Your task to perform on an android device: remove spam from my inbox in the gmail app Image 0: 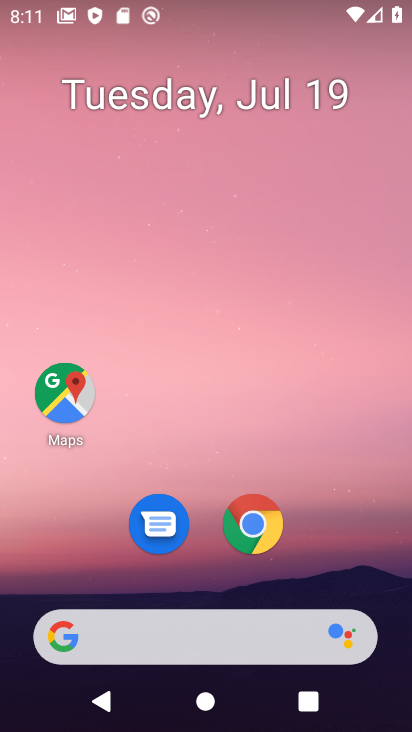
Step 0: drag from (230, 370) to (311, 87)
Your task to perform on an android device: remove spam from my inbox in the gmail app Image 1: 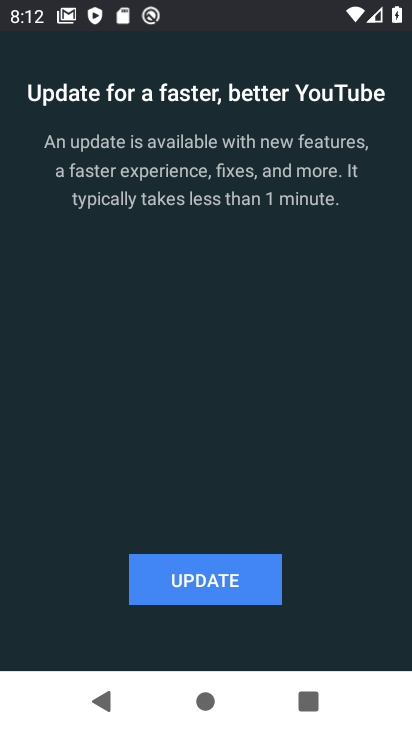
Step 1: press home button
Your task to perform on an android device: remove spam from my inbox in the gmail app Image 2: 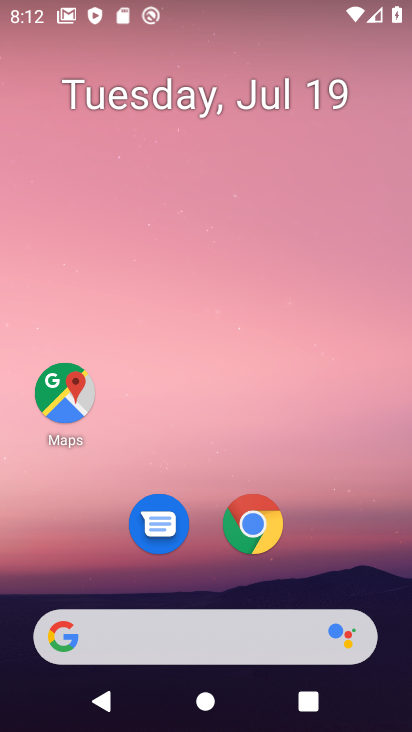
Step 2: drag from (229, 500) to (311, 2)
Your task to perform on an android device: remove spam from my inbox in the gmail app Image 3: 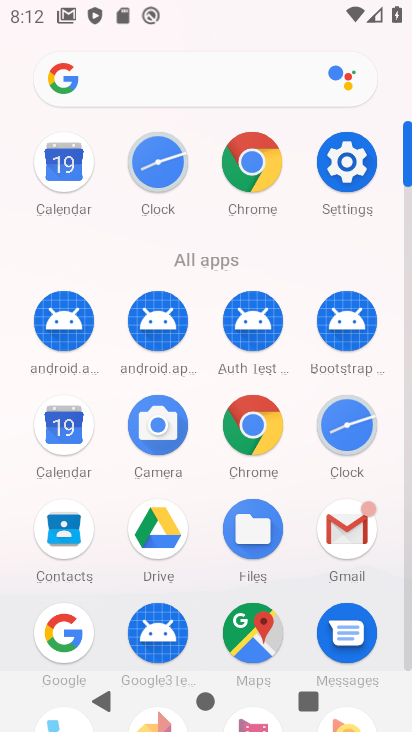
Step 3: click (355, 538)
Your task to perform on an android device: remove spam from my inbox in the gmail app Image 4: 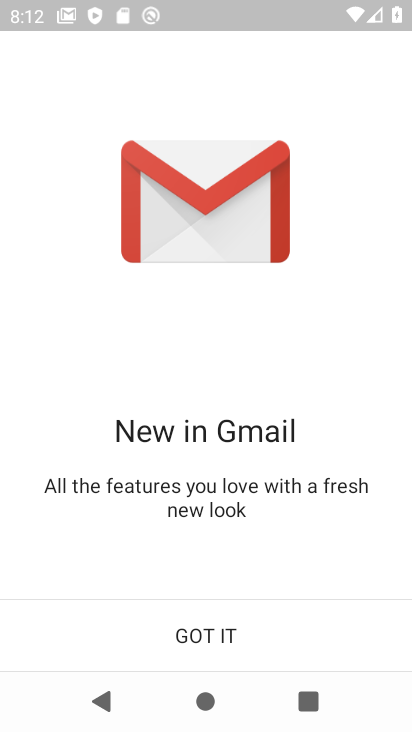
Step 4: click (232, 636)
Your task to perform on an android device: remove spam from my inbox in the gmail app Image 5: 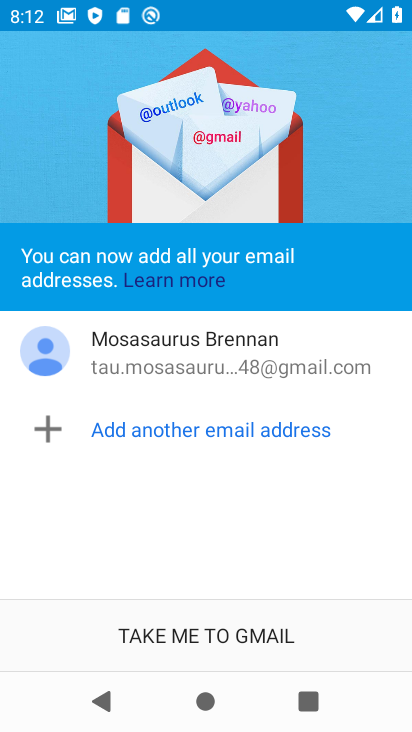
Step 5: click (232, 636)
Your task to perform on an android device: remove spam from my inbox in the gmail app Image 6: 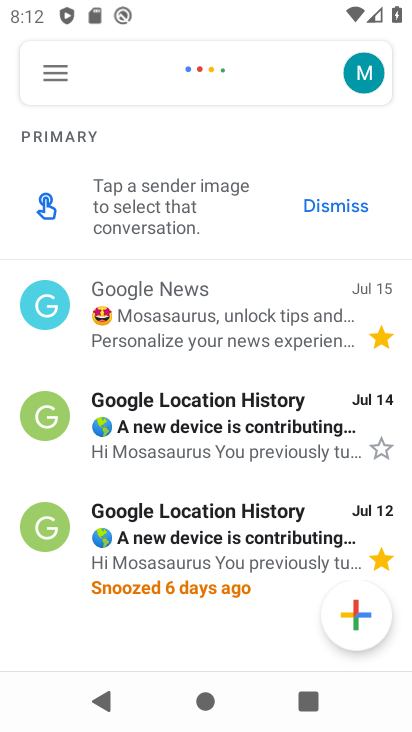
Step 6: click (51, 70)
Your task to perform on an android device: remove spam from my inbox in the gmail app Image 7: 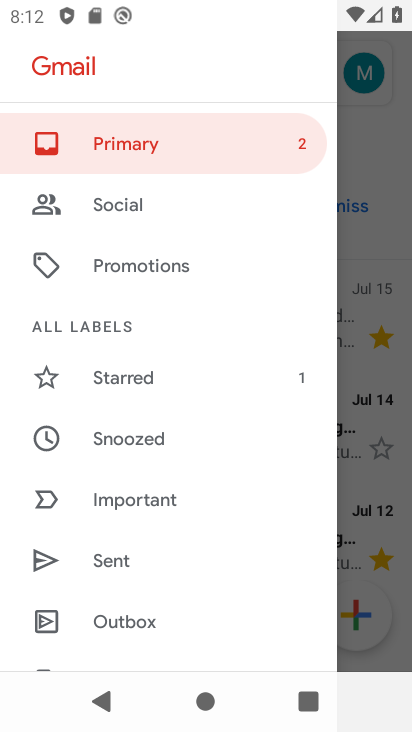
Step 7: drag from (160, 564) to (258, 119)
Your task to perform on an android device: remove spam from my inbox in the gmail app Image 8: 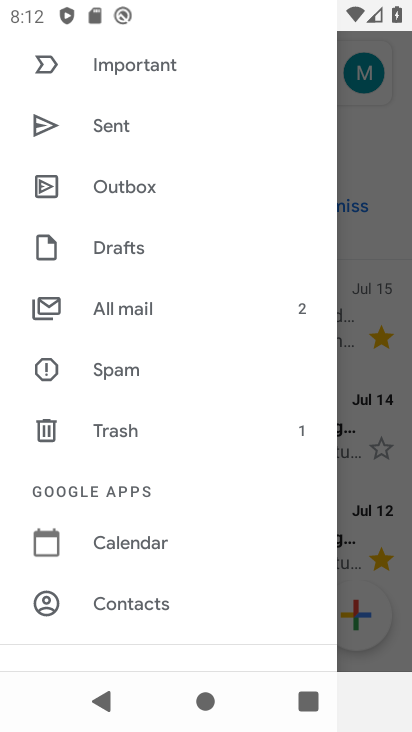
Step 8: click (114, 372)
Your task to perform on an android device: remove spam from my inbox in the gmail app Image 9: 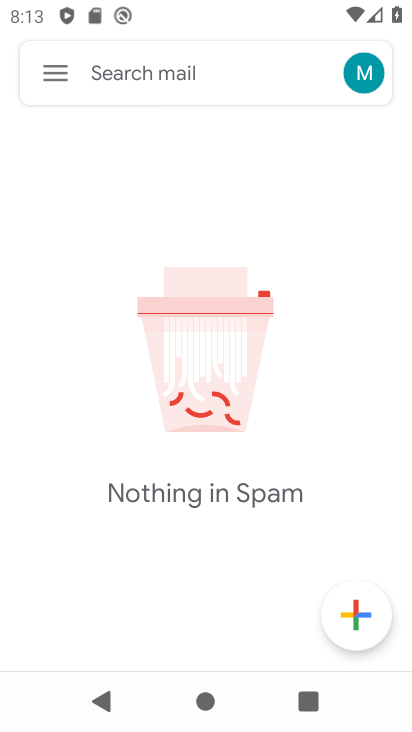
Step 9: task complete